Your task to perform on an android device: Search for vegetarian restaurants on Maps Image 0: 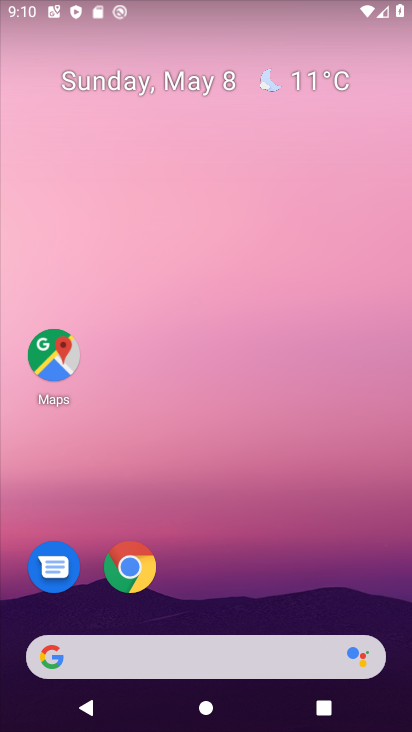
Step 0: click (51, 347)
Your task to perform on an android device: Search for vegetarian restaurants on Maps Image 1: 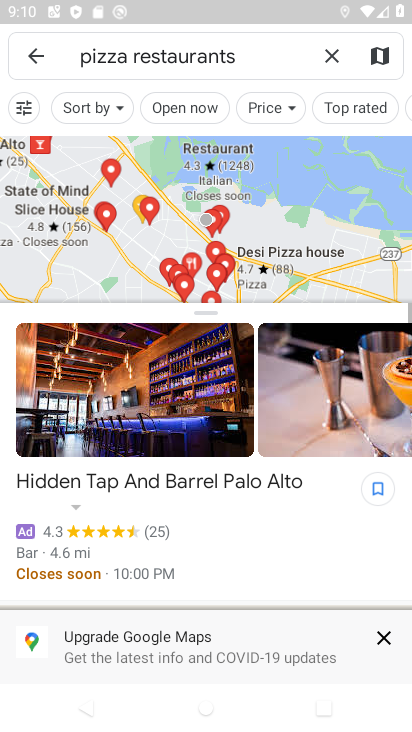
Step 1: click (330, 57)
Your task to perform on an android device: Search for vegetarian restaurants on Maps Image 2: 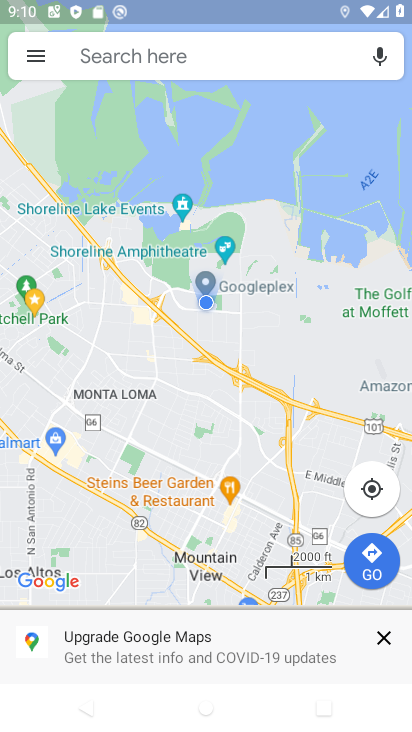
Step 2: click (181, 50)
Your task to perform on an android device: Search for vegetarian restaurants on Maps Image 3: 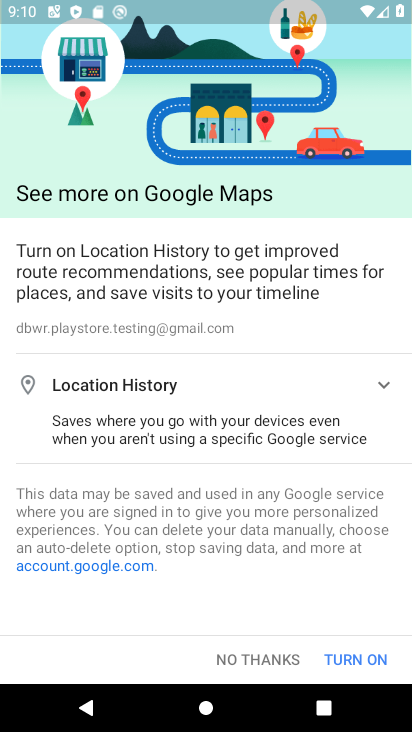
Step 3: type "vegetarian restauran"
Your task to perform on an android device: Search for vegetarian restaurants on Maps Image 4: 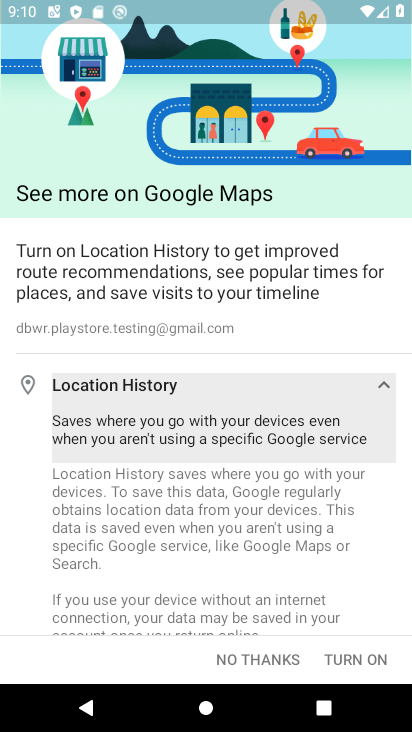
Step 4: click (234, 655)
Your task to perform on an android device: Search for vegetarian restaurants on Maps Image 5: 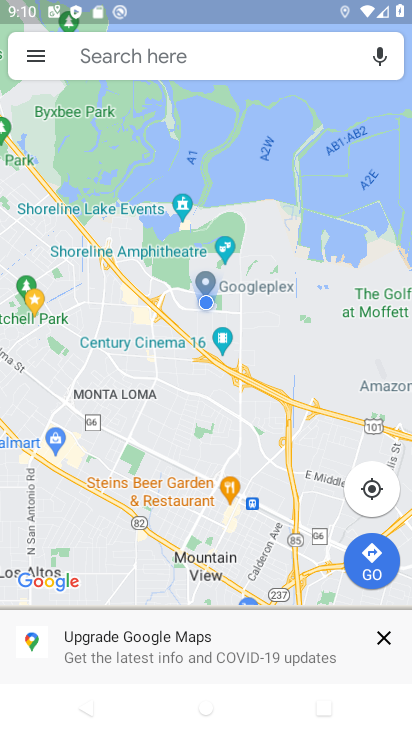
Step 5: click (114, 68)
Your task to perform on an android device: Search for vegetarian restaurants on Maps Image 6: 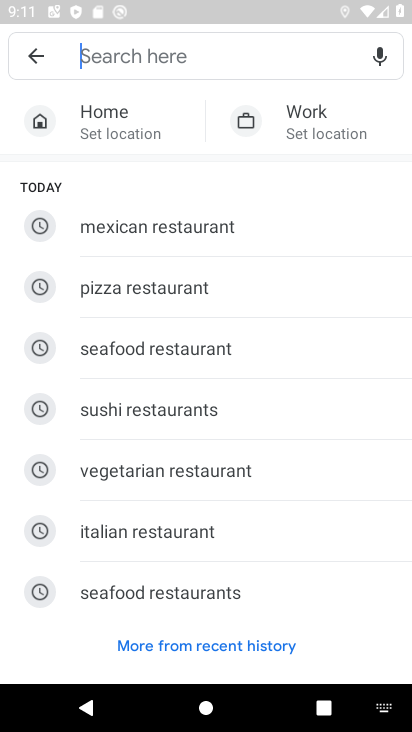
Step 6: click (150, 470)
Your task to perform on an android device: Search for vegetarian restaurants on Maps Image 7: 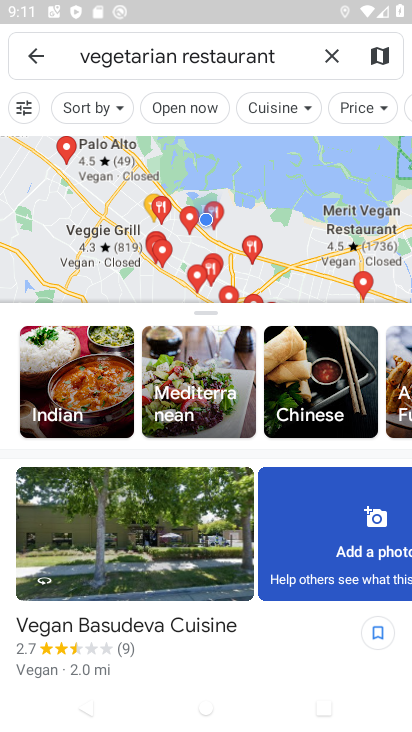
Step 7: task complete